Your task to perform on an android device: See recent photos Image 0: 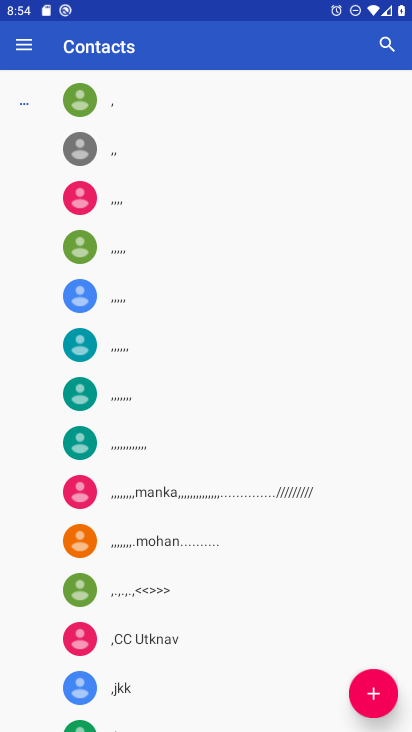
Step 0: press home button
Your task to perform on an android device: See recent photos Image 1: 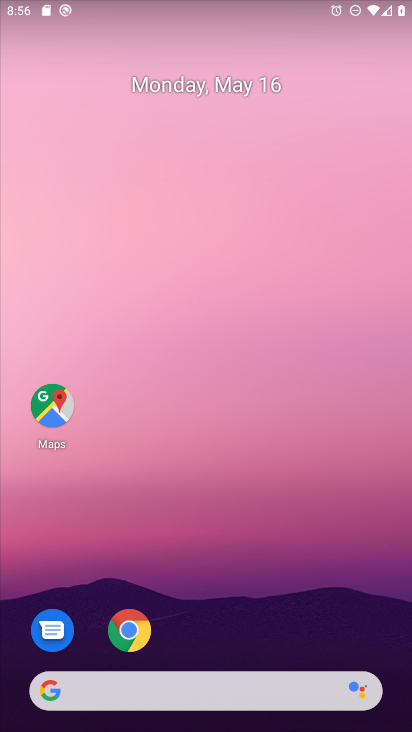
Step 1: drag from (282, 323) to (363, 117)
Your task to perform on an android device: See recent photos Image 2: 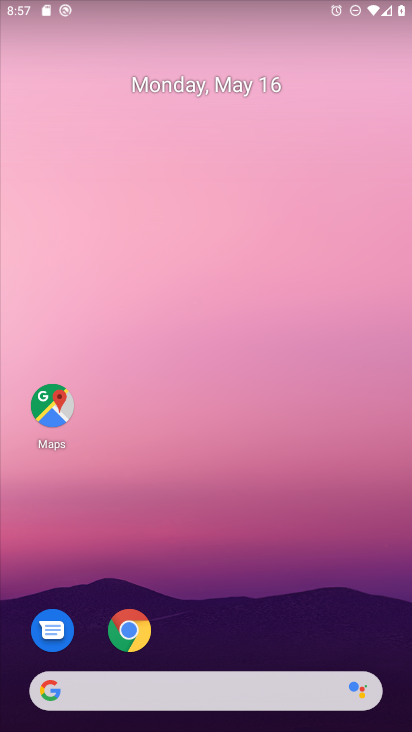
Step 2: drag from (242, 643) to (302, 44)
Your task to perform on an android device: See recent photos Image 3: 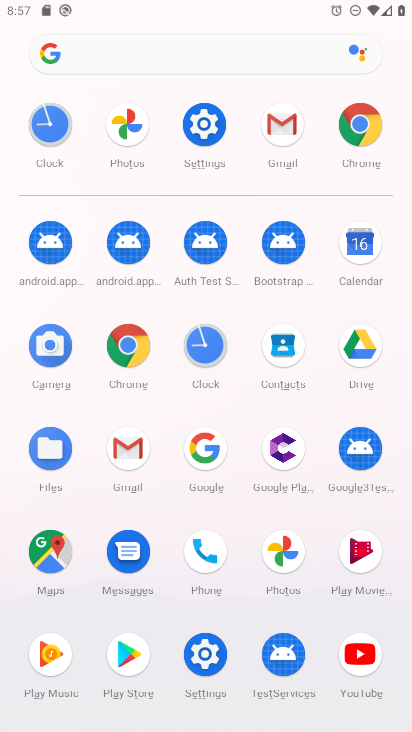
Step 3: click (138, 117)
Your task to perform on an android device: See recent photos Image 4: 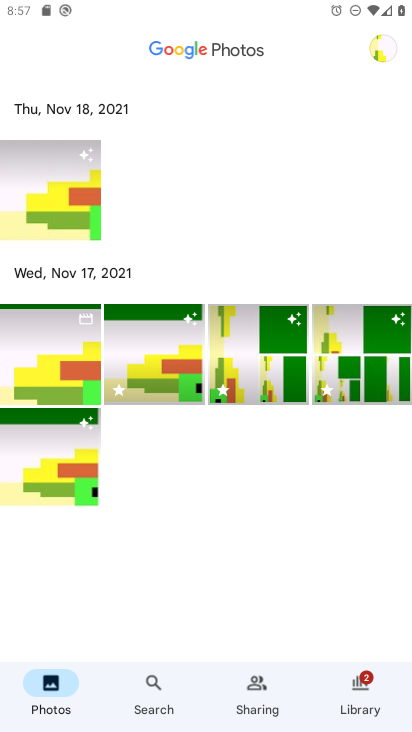
Step 4: task complete